Your task to perform on an android device: set default search engine in the chrome app Image 0: 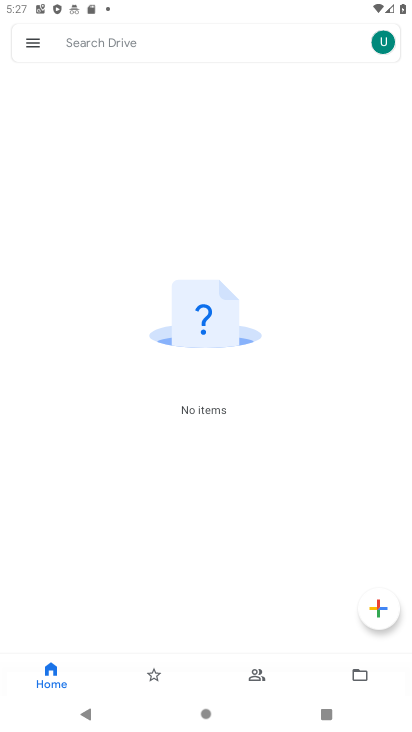
Step 0: press home button
Your task to perform on an android device: set default search engine in the chrome app Image 1: 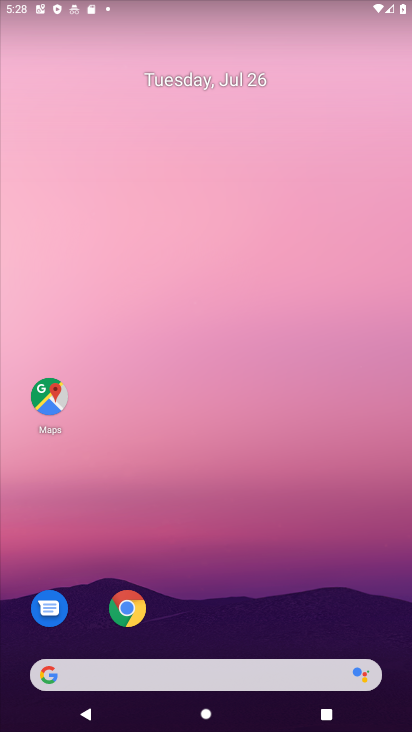
Step 1: drag from (308, 631) to (156, 8)
Your task to perform on an android device: set default search engine in the chrome app Image 2: 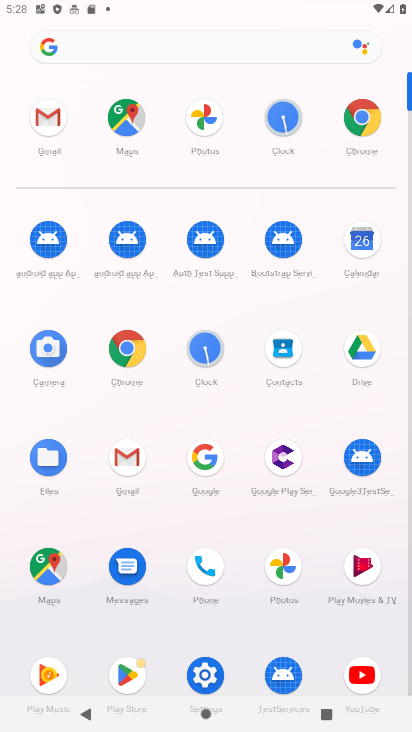
Step 2: click (362, 114)
Your task to perform on an android device: set default search engine in the chrome app Image 3: 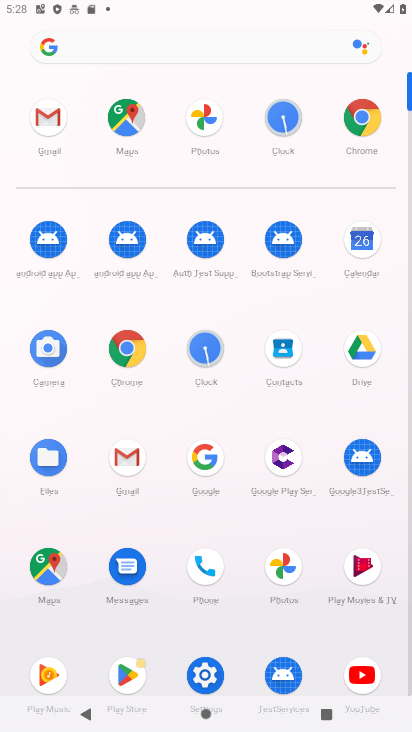
Step 3: click (356, 139)
Your task to perform on an android device: set default search engine in the chrome app Image 4: 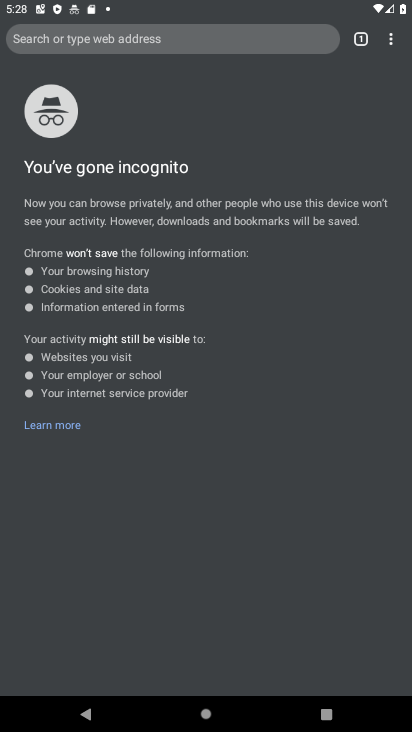
Step 4: drag from (395, 37) to (255, 293)
Your task to perform on an android device: set default search engine in the chrome app Image 5: 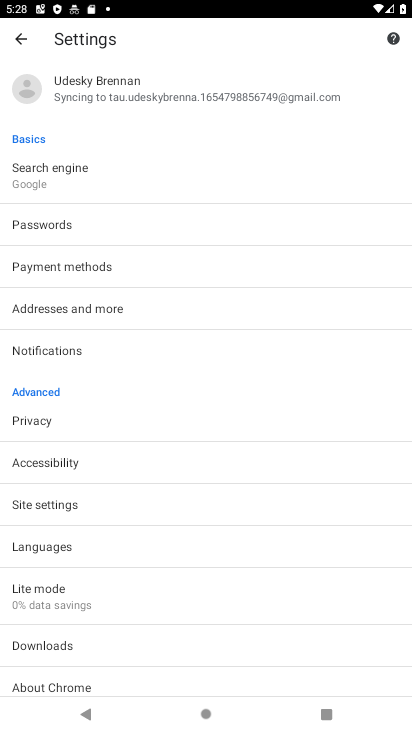
Step 5: click (40, 181)
Your task to perform on an android device: set default search engine in the chrome app Image 6: 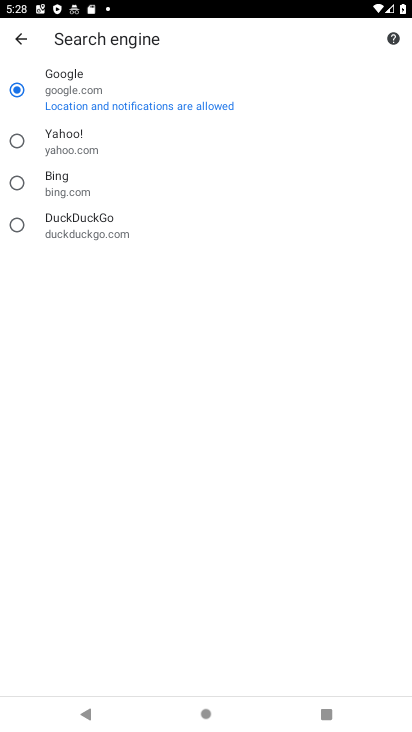
Step 6: click (8, 139)
Your task to perform on an android device: set default search engine in the chrome app Image 7: 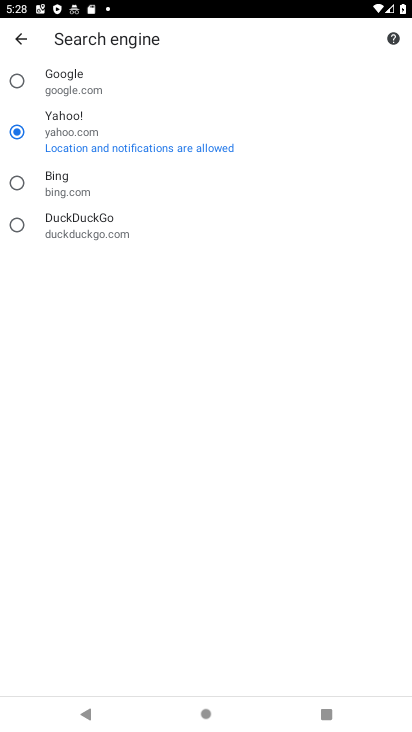
Step 7: task complete